Your task to perform on an android device: Go to network settings Image 0: 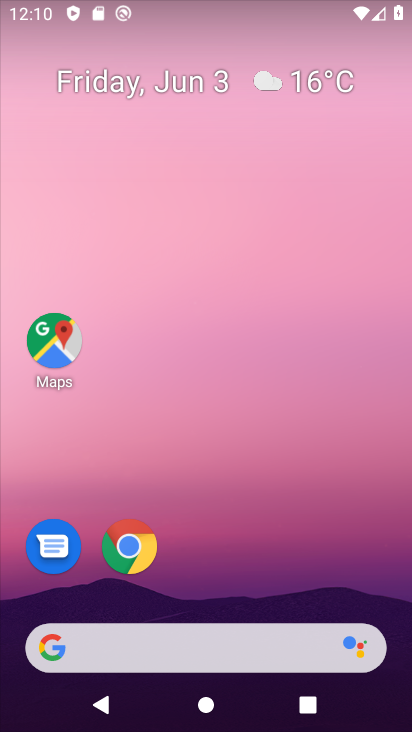
Step 0: drag from (220, 553) to (261, 89)
Your task to perform on an android device: Go to network settings Image 1: 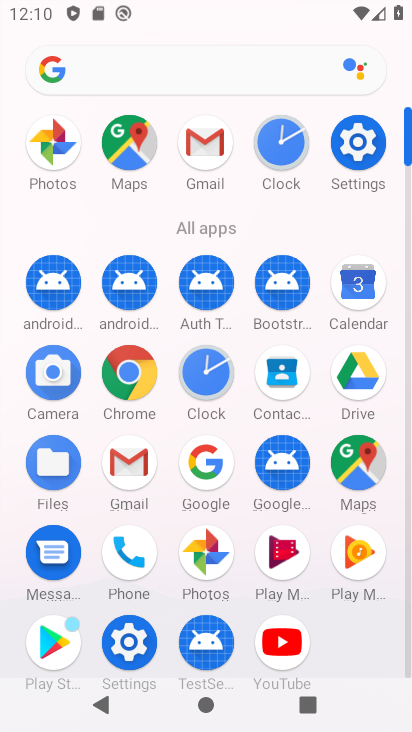
Step 1: click (348, 149)
Your task to perform on an android device: Go to network settings Image 2: 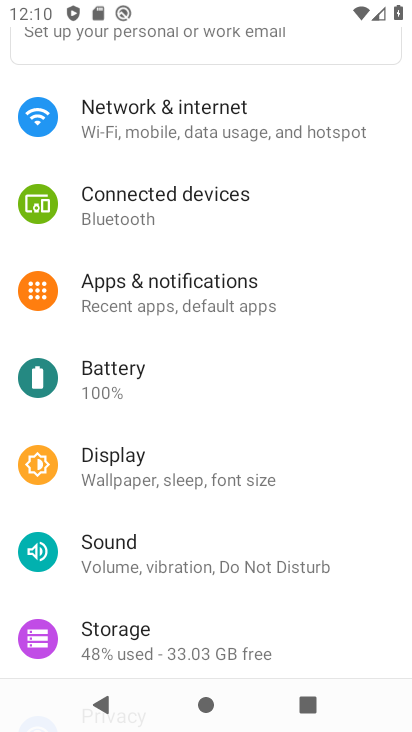
Step 2: click (170, 115)
Your task to perform on an android device: Go to network settings Image 3: 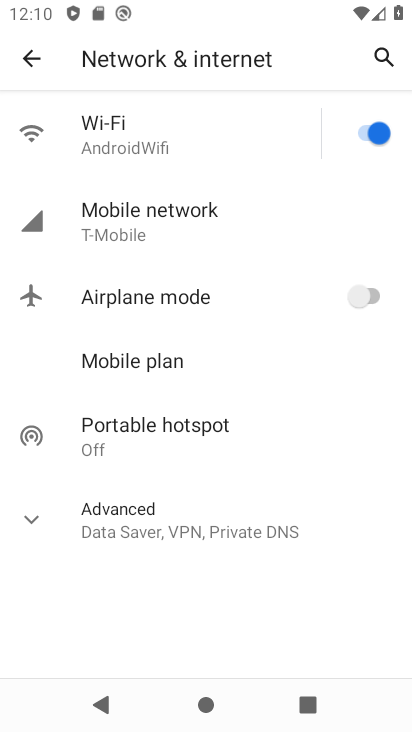
Step 3: click (158, 224)
Your task to perform on an android device: Go to network settings Image 4: 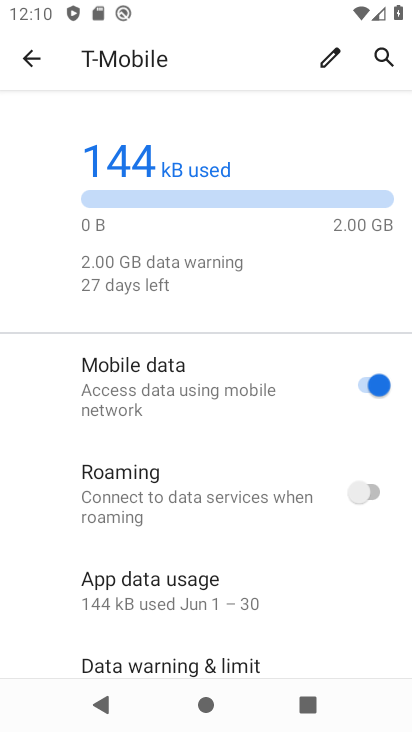
Step 4: task complete